Your task to perform on an android device: Search for top rated sushi restaurants on Maps Image 0: 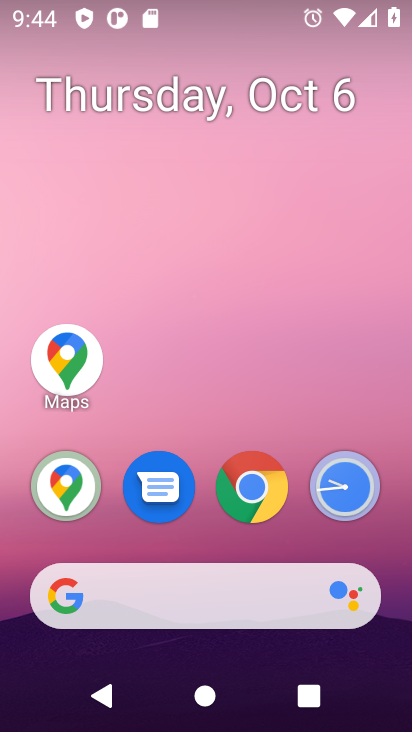
Step 0: drag from (250, 605) to (203, 188)
Your task to perform on an android device: Search for top rated sushi restaurants on Maps Image 1: 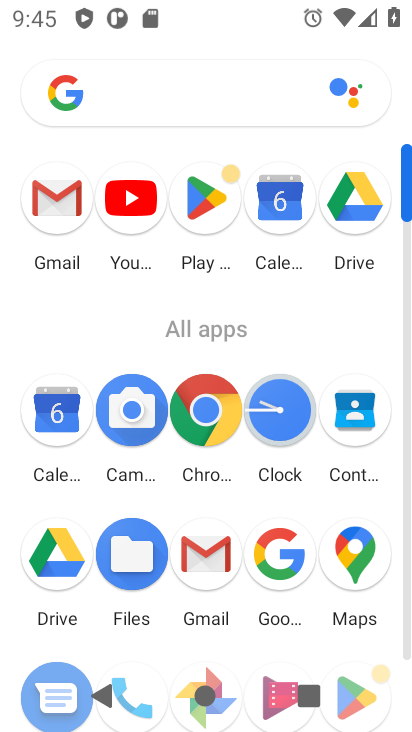
Step 1: click (360, 567)
Your task to perform on an android device: Search for top rated sushi restaurants on Maps Image 2: 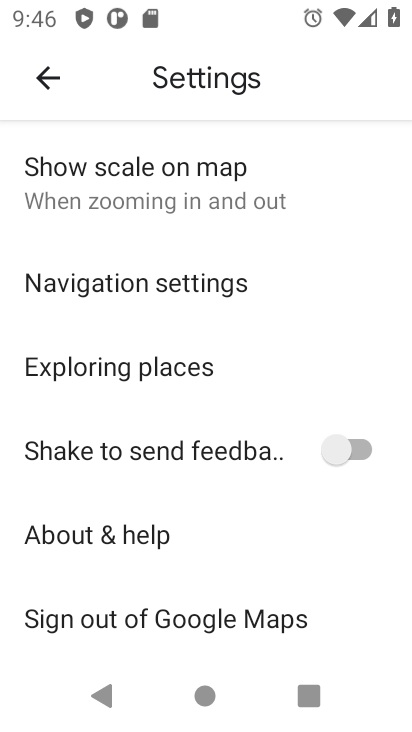
Step 2: click (53, 73)
Your task to perform on an android device: Search for top rated sushi restaurants on Maps Image 3: 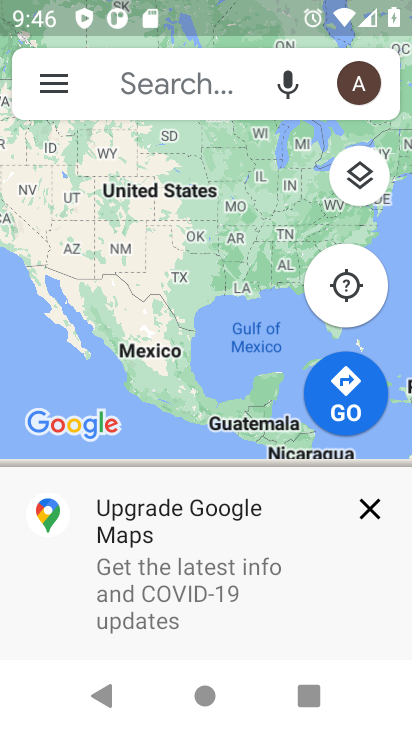
Step 3: click (129, 88)
Your task to perform on an android device: Search for top rated sushi restaurants on Maps Image 4: 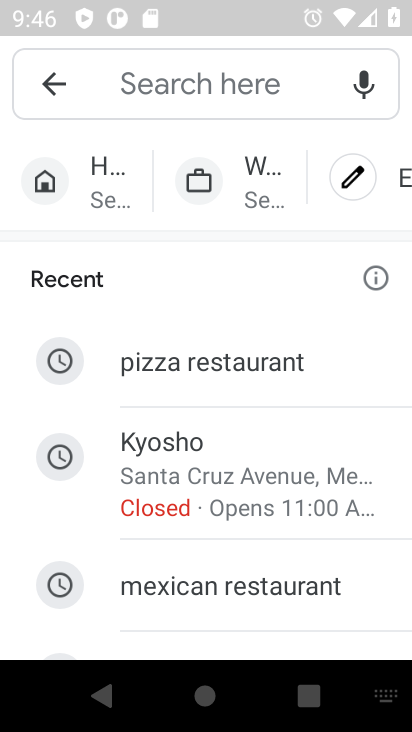
Step 4: type "top rated sushi restaurants"
Your task to perform on an android device: Search for top rated sushi restaurants on Maps Image 5: 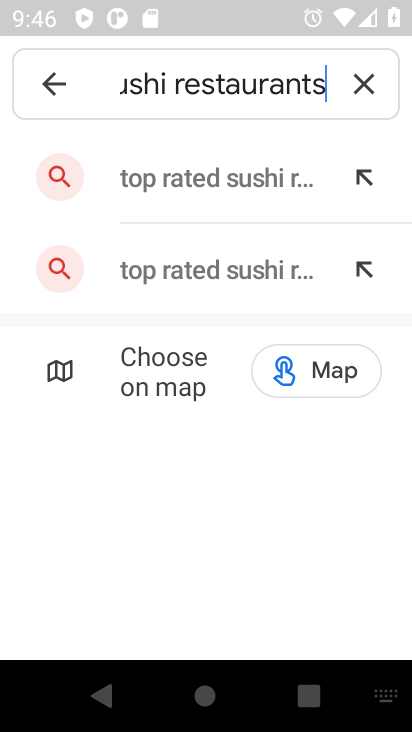
Step 5: press enter
Your task to perform on an android device: Search for top rated sushi restaurants on Maps Image 6: 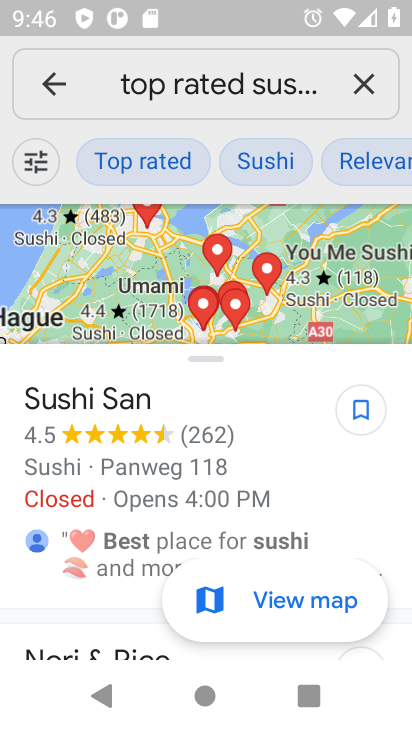
Step 6: task complete